Your task to perform on an android device: Open eBay Image 0: 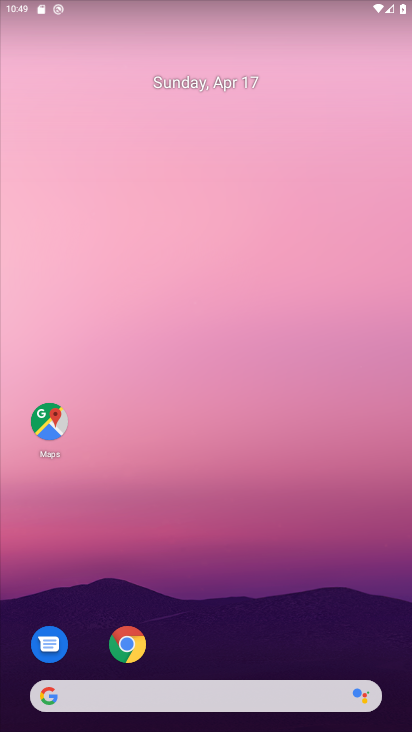
Step 0: click (131, 644)
Your task to perform on an android device: Open eBay Image 1: 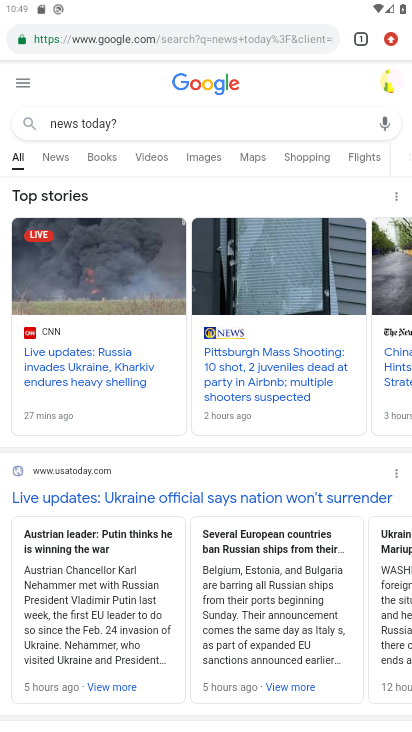
Step 1: click (68, 126)
Your task to perform on an android device: Open eBay Image 2: 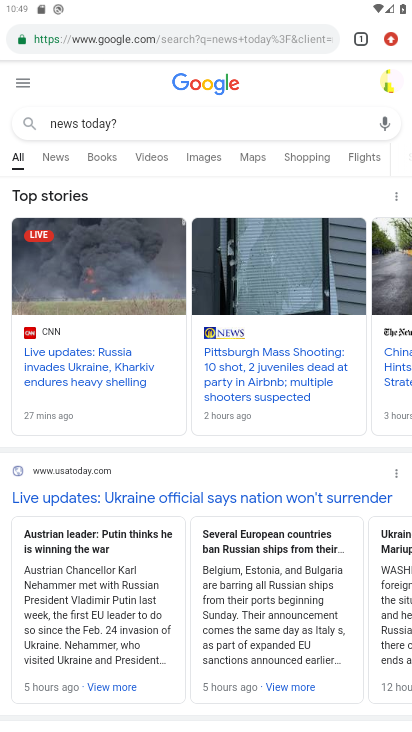
Step 2: click (68, 126)
Your task to perform on an android device: Open eBay Image 3: 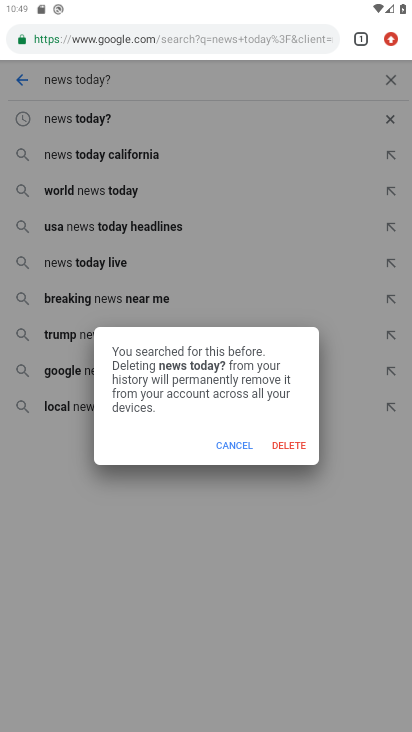
Step 3: click (83, 80)
Your task to perform on an android device: Open eBay Image 4: 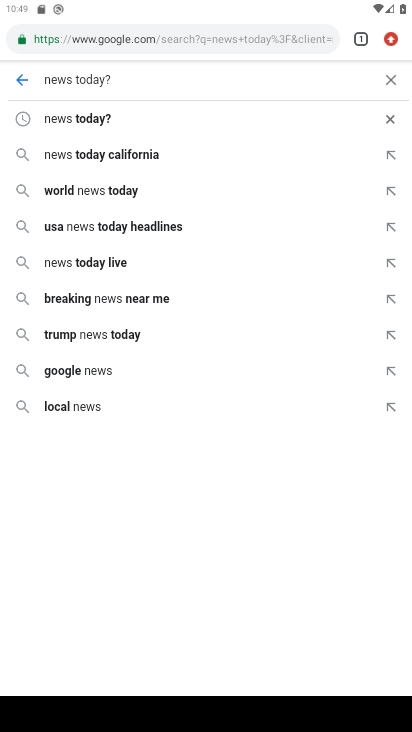
Step 4: click (88, 77)
Your task to perform on an android device: Open eBay Image 5: 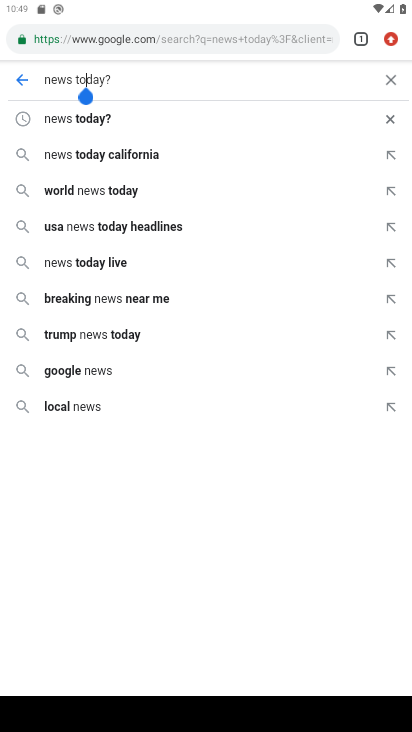
Step 5: click (390, 77)
Your task to perform on an android device: Open eBay Image 6: 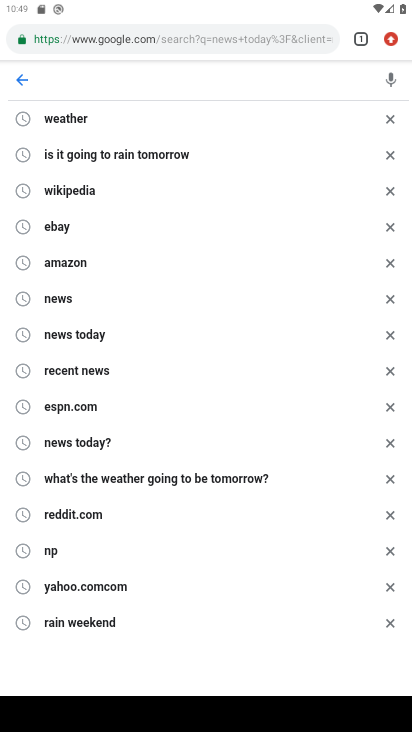
Step 6: type "eBay"
Your task to perform on an android device: Open eBay Image 7: 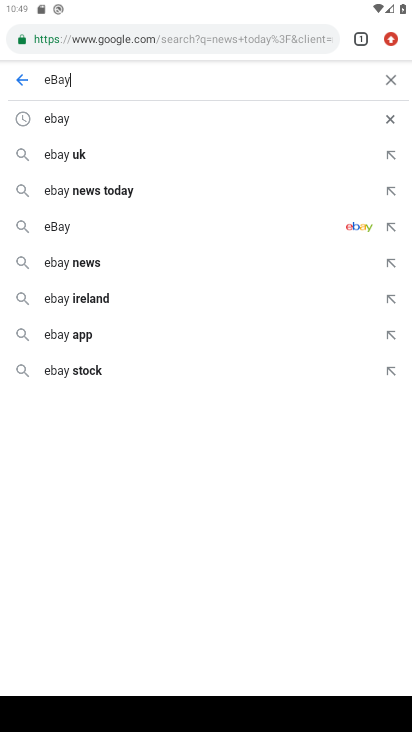
Step 7: click (56, 123)
Your task to perform on an android device: Open eBay Image 8: 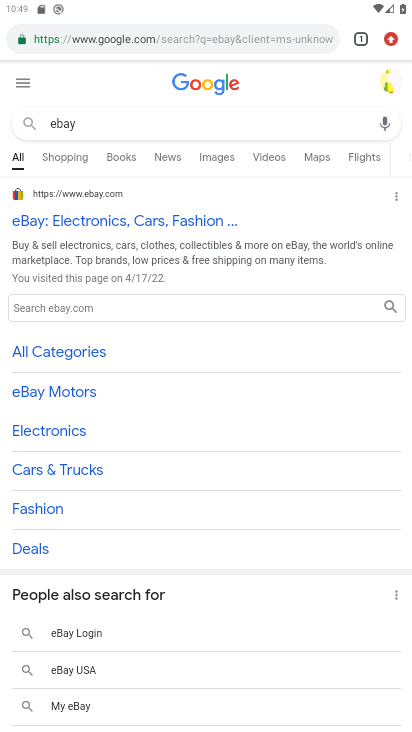
Step 8: task complete